Your task to perform on an android device: Do I have any events today? Image 0: 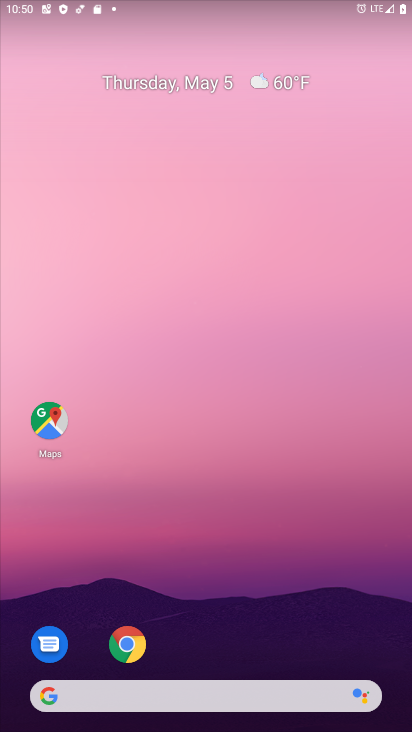
Step 0: drag from (231, 630) to (213, 165)
Your task to perform on an android device: Do I have any events today? Image 1: 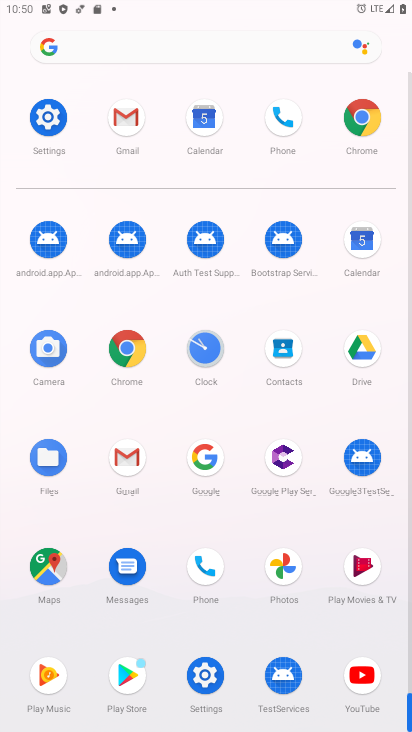
Step 1: click (358, 254)
Your task to perform on an android device: Do I have any events today? Image 2: 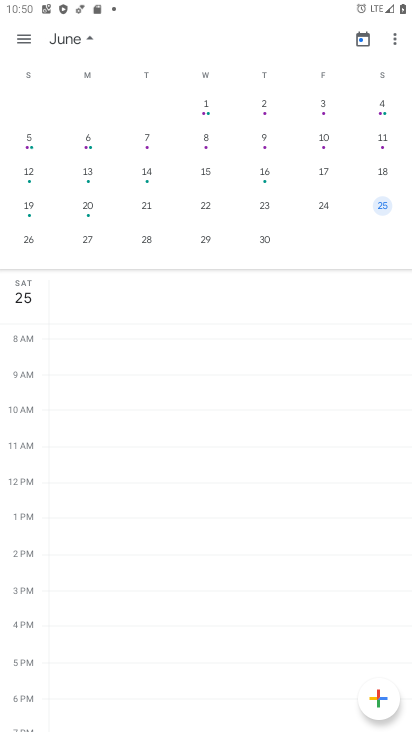
Step 2: task complete